Your task to perform on an android device: Open Google Maps and go to "Timeline" Image 0: 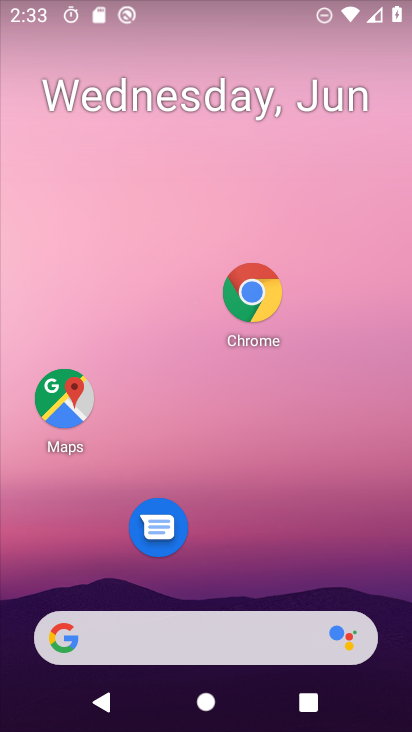
Step 0: drag from (234, 545) to (234, 398)
Your task to perform on an android device: Open Google Maps and go to "Timeline" Image 1: 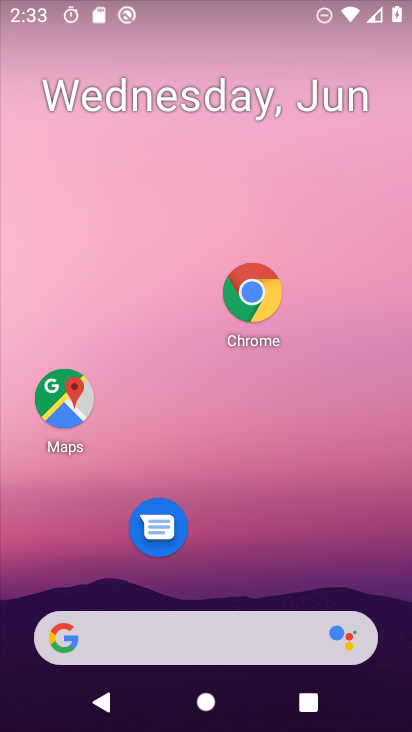
Step 1: drag from (225, 617) to (264, 334)
Your task to perform on an android device: Open Google Maps and go to "Timeline" Image 2: 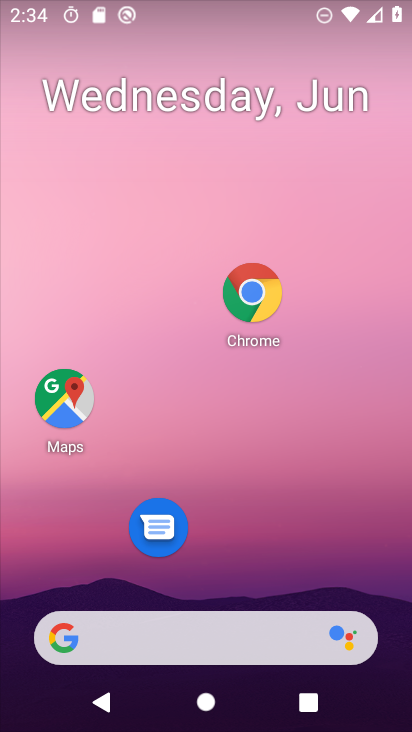
Step 2: click (67, 415)
Your task to perform on an android device: Open Google Maps and go to "Timeline" Image 3: 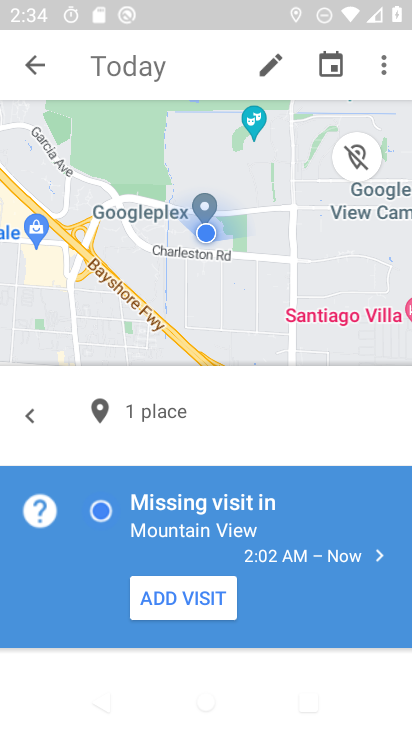
Step 3: task complete